Your task to perform on an android device: toggle notification dots Image 0: 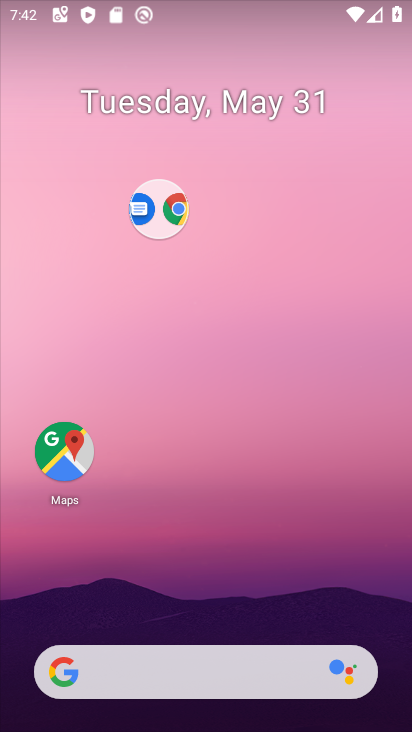
Step 0: drag from (216, 583) to (141, 121)
Your task to perform on an android device: toggle notification dots Image 1: 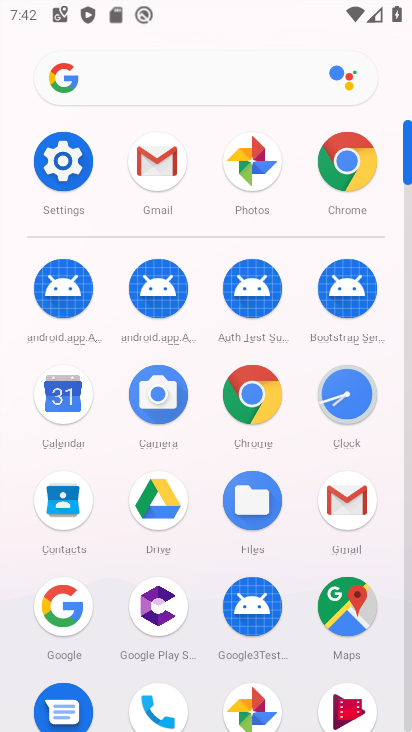
Step 1: click (62, 165)
Your task to perform on an android device: toggle notification dots Image 2: 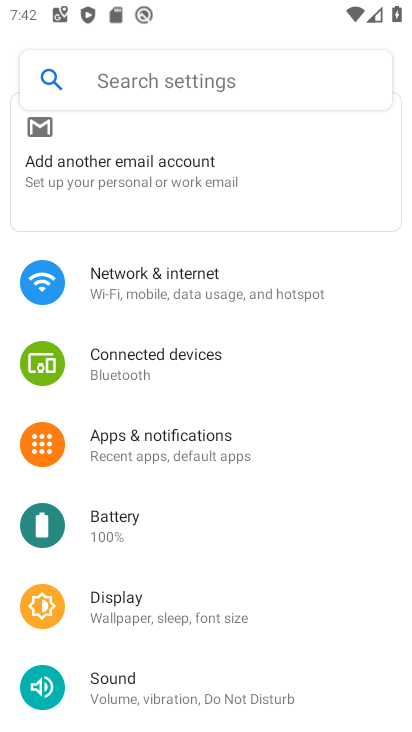
Step 2: click (190, 443)
Your task to perform on an android device: toggle notification dots Image 3: 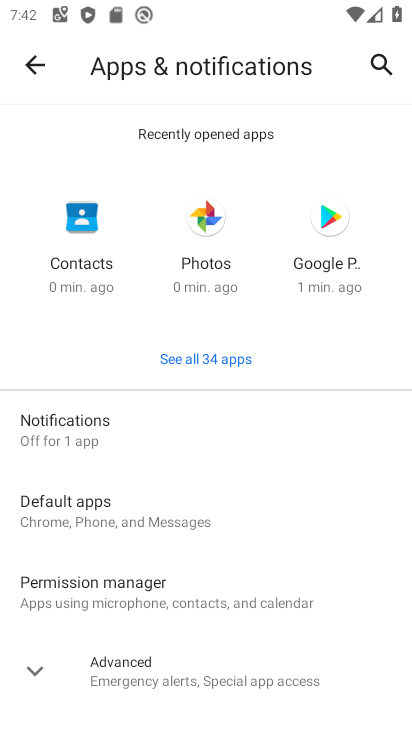
Step 3: click (55, 443)
Your task to perform on an android device: toggle notification dots Image 4: 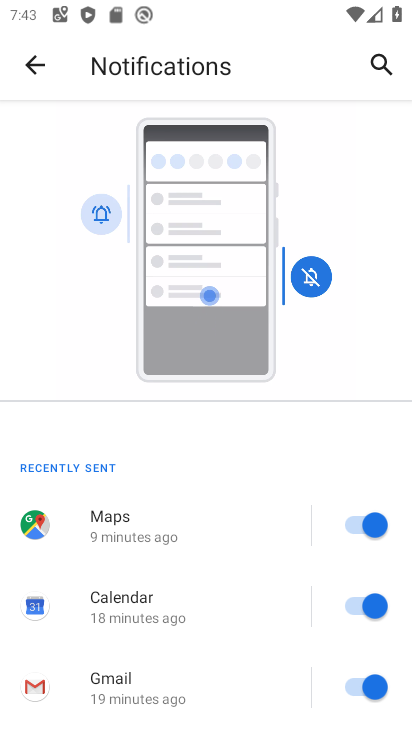
Step 4: drag from (243, 648) to (213, 392)
Your task to perform on an android device: toggle notification dots Image 5: 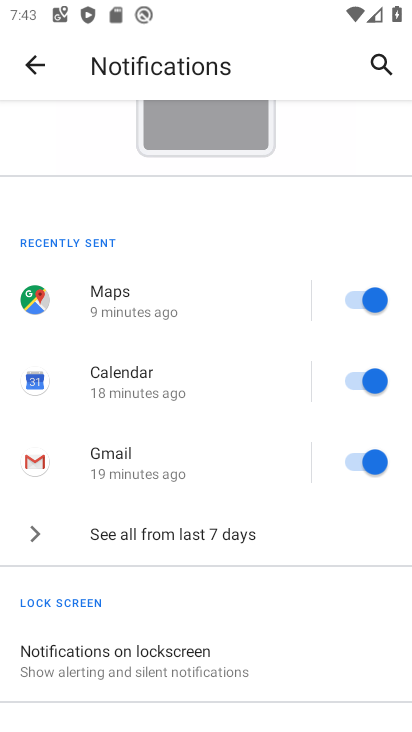
Step 5: drag from (214, 676) to (222, 410)
Your task to perform on an android device: toggle notification dots Image 6: 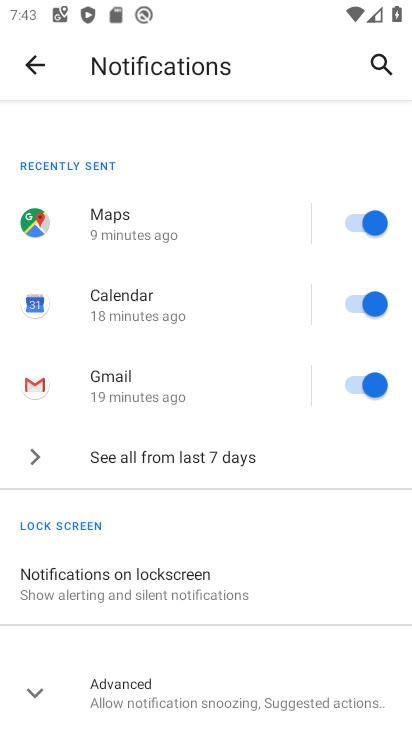
Step 6: click (186, 699)
Your task to perform on an android device: toggle notification dots Image 7: 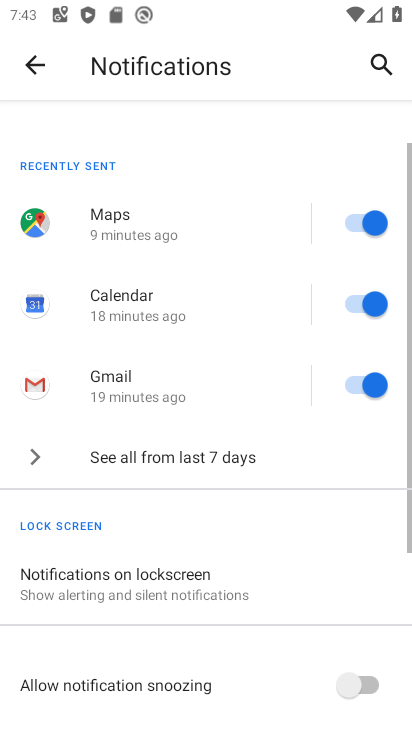
Step 7: drag from (185, 687) to (171, 359)
Your task to perform on an android device: toggle notification dots Image 8: 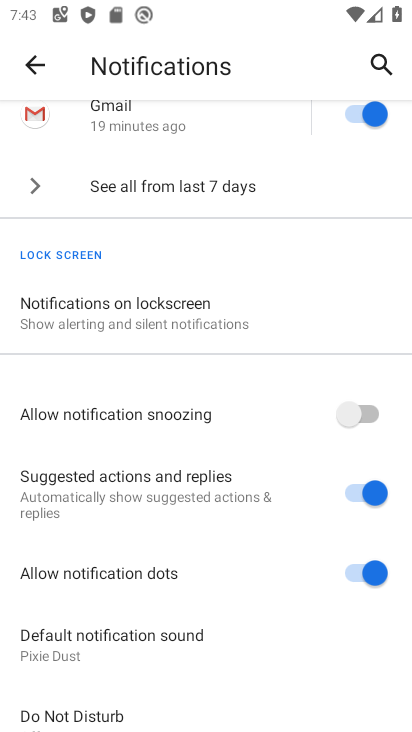
Step 8: click (363, 576)
Your task to perform on an android device: toggle notification dots Image 9: 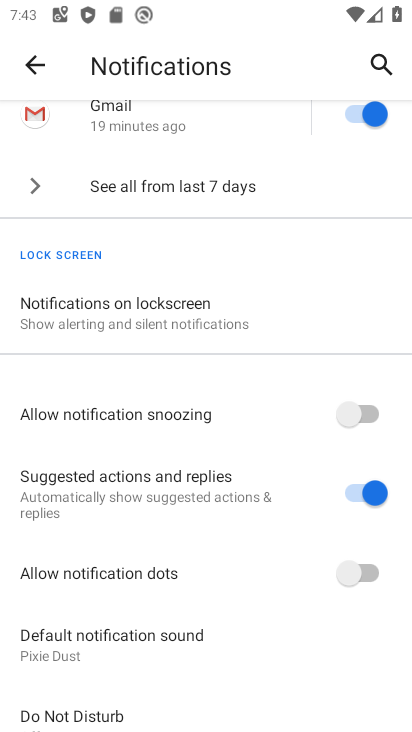
Step 9: task complete